Your task to perform on an android device: toggle data saver in the chrome app Image 0: 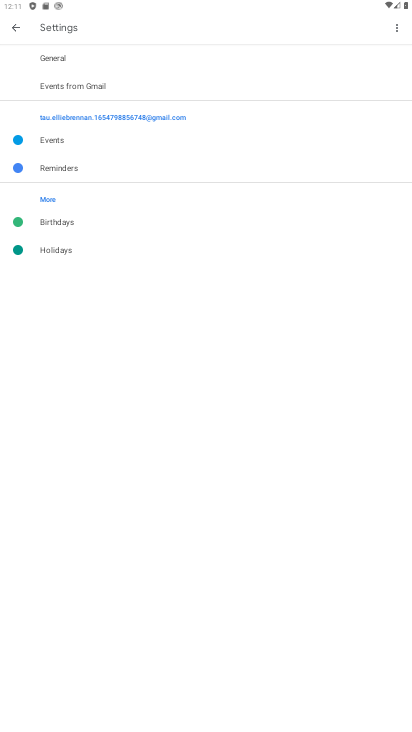
Step 0: press home button
Your task to perform on an android device: toggle data saver in the chrome app Image 1: 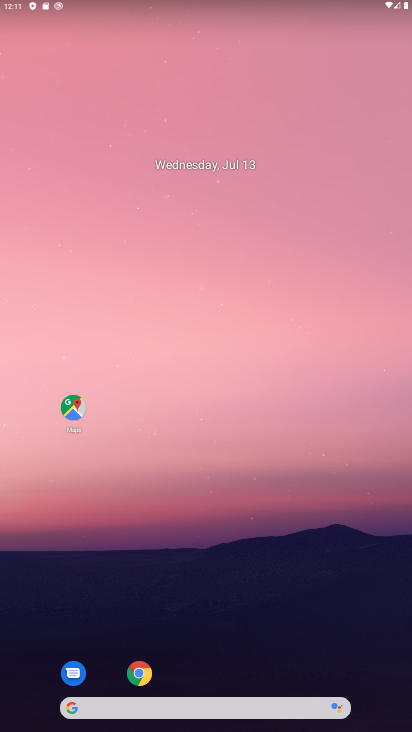
Step 1: click (149, 670)
Your task to perform on an android device: toggle data saver in the chrome app Image 2: 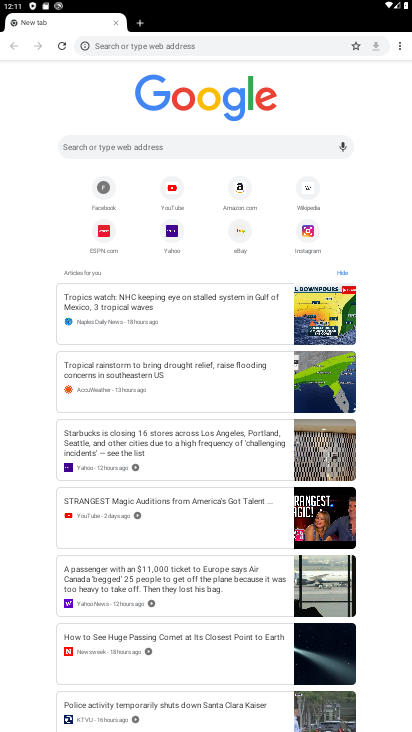
Step 2: click (392, 51)
Your task to perform on an android device: toggle data saver in the chrome app Image 3: 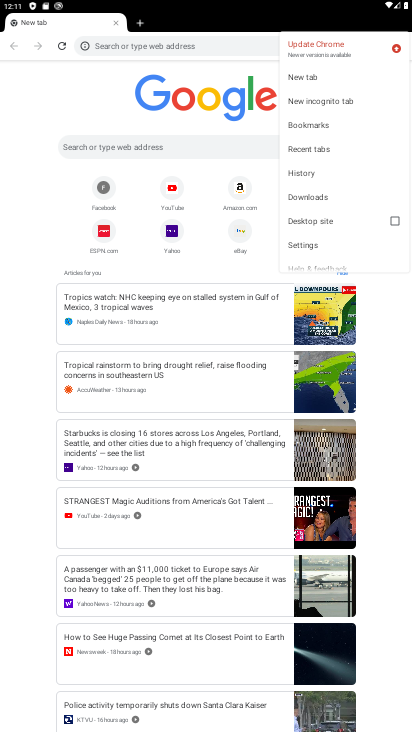
Step 3: click (319, 248)
Your task to perform on an android device: toggle data saver in the chrome app Image 4: 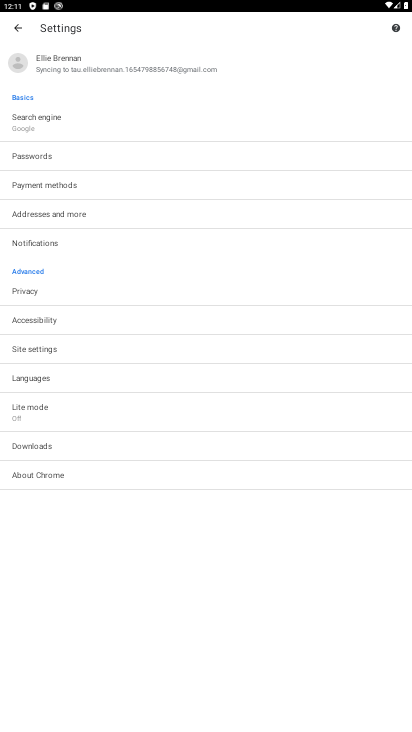
Step 4: click (227, 426)
Your task to perform on an android device: toggle data saver in the chrome app Image 5: 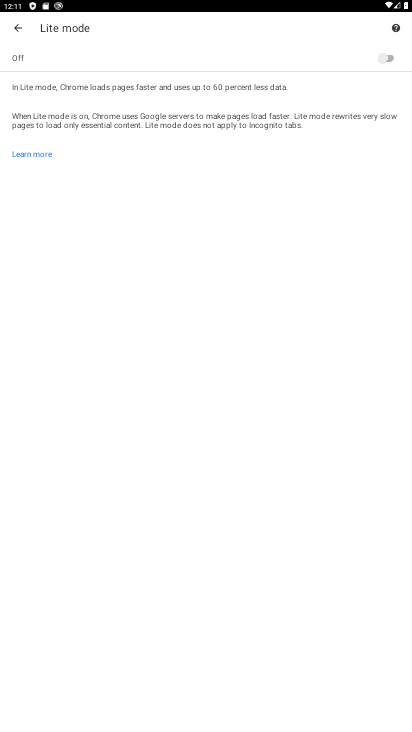
Step 5: click (386, 64)
Your task to perform on an android device: toggle data saver in the chrome app Image 6: 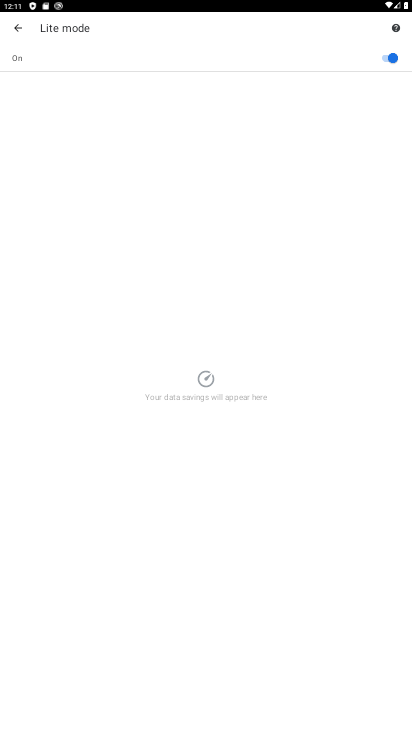
Step 6: task complete